Your task to perform on an android device: Toggle the flashlight Image 0: 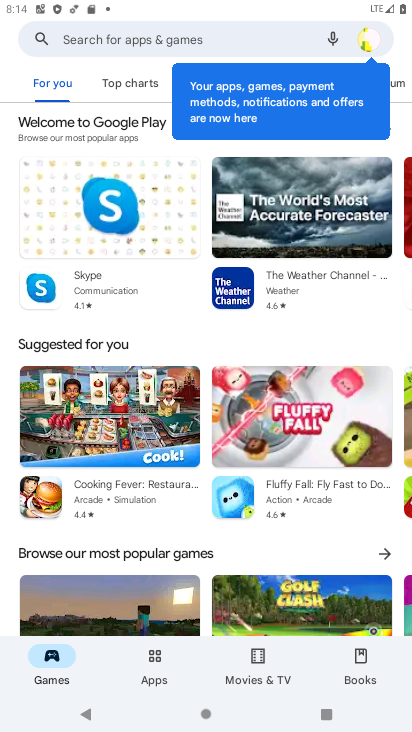
Step 0: press home button
Your task to perform on an android device: Toggle the flashlight Image 1: 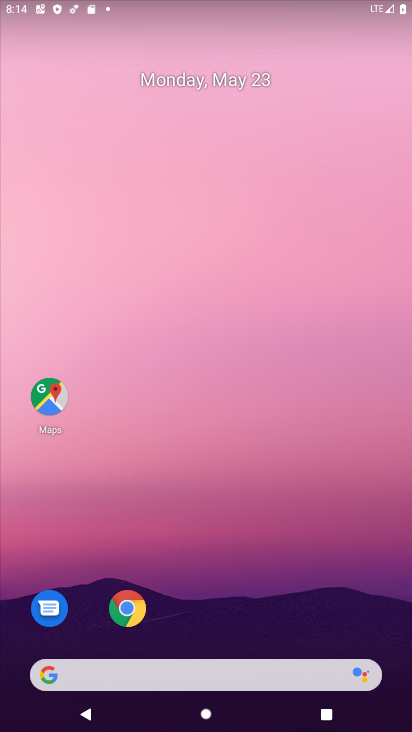
Step 1: task complete